Your task to perform on an android device: Go to ESPN.com Image 0: 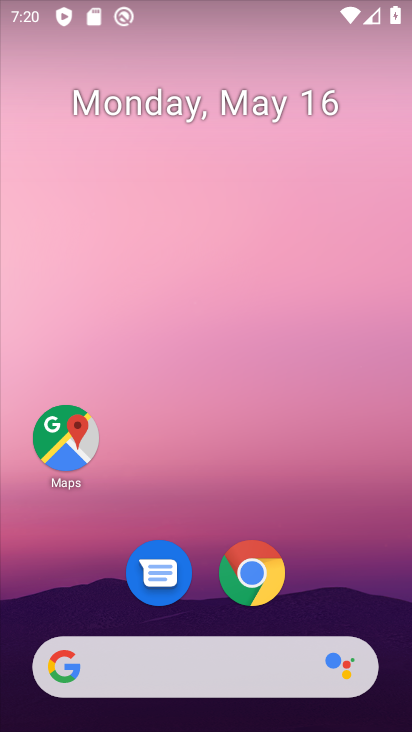
Step 0: drag from (350, 510) to (40, 64)
Your task to perform on an android device: Go to ESPN.com Image 1: 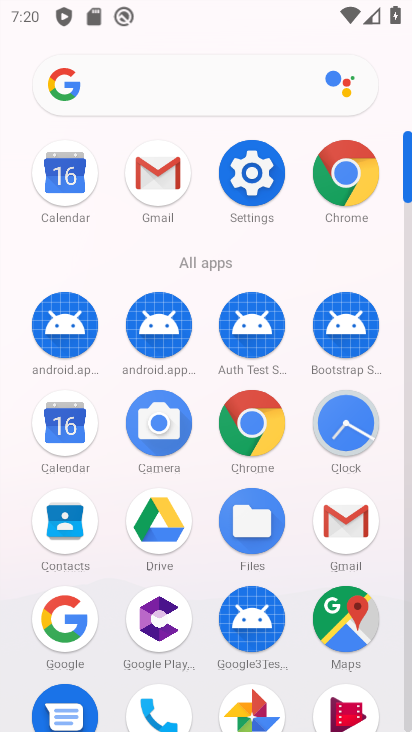
Step 1: click (347, 246)
Your task to perform on an android device: Go to ESPN.com Image 2: 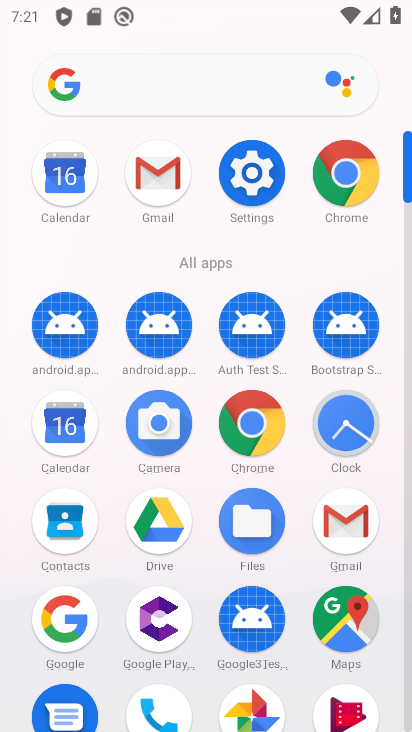
Step 2: click (360, 160)
Your task to perform on an android device: Go to ESPN.com Image 3: 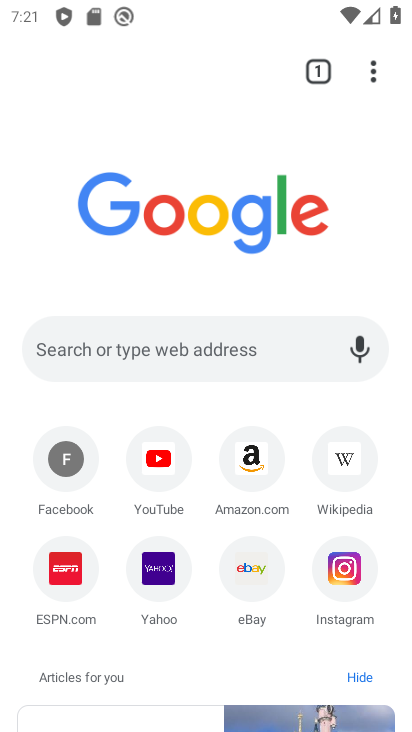
Step 3: click (58, 593)
Your task to perform on an android device: Go to ESPN.com Image 4: 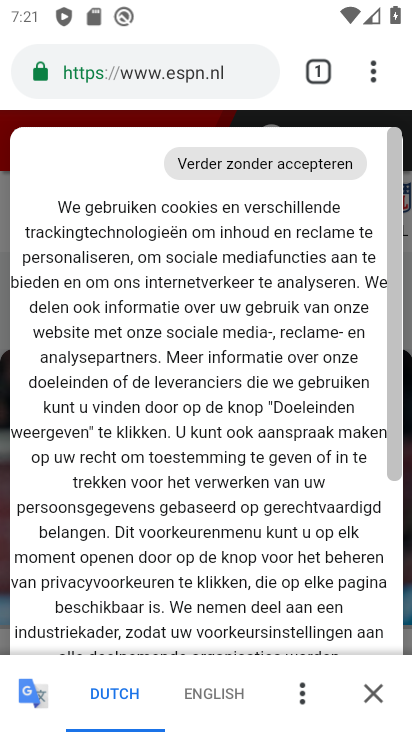
Step 4: task complete